Your task to perform on an android device: What's the weather going to be tomorrow? Image 0: 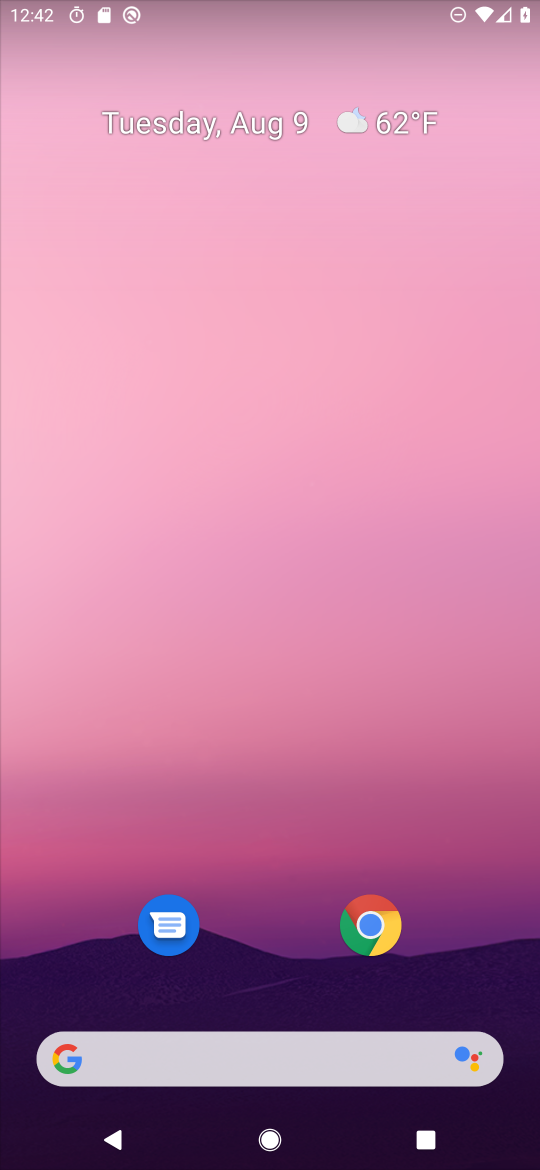
Step 0: click (384, 114)
Your task to perform on an android device: What's the weather going to be tomorrow? Image 1: 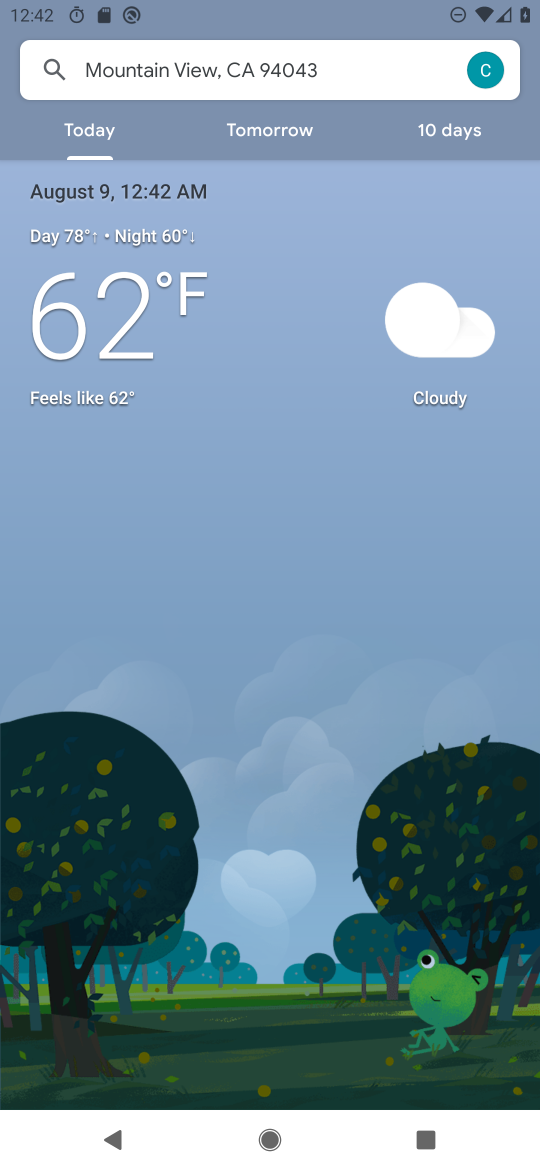
Step 1: click (280, 139)
Your task to perform on an android device: What's the weather going to be tomorrow? Image 2: 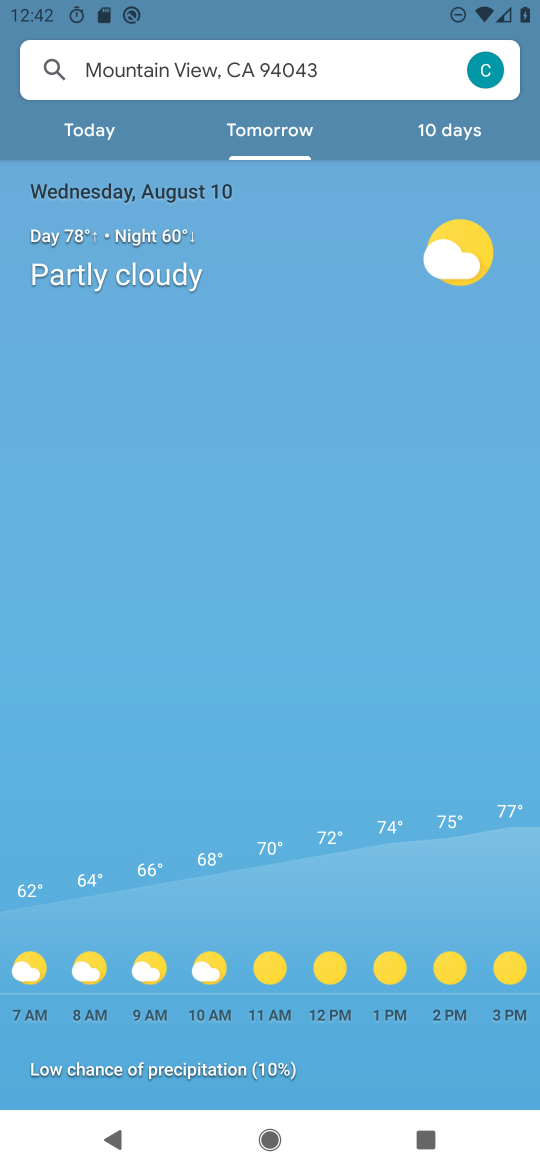
Step 2: task complete